Your task to perform on an android device: show emergency info Image 0: 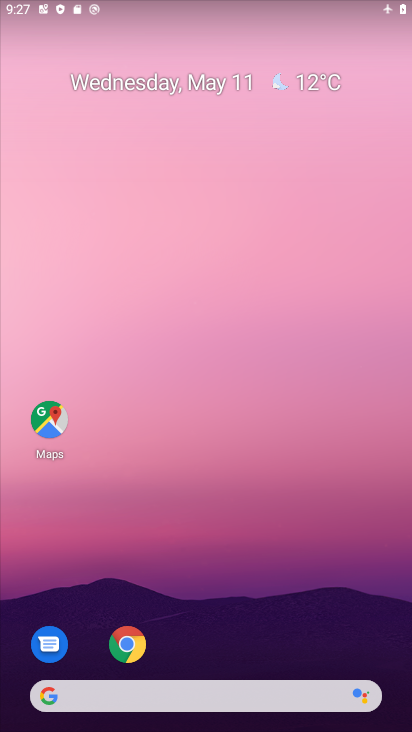
Step 0: drag from (182, 586) to (220, 122)
Your task to perform on an android device: show emergency info Image 1: 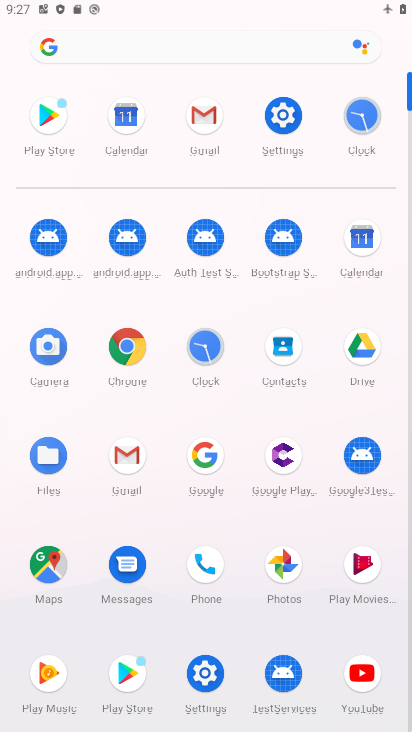
Step 1: click (291, 115)
Your task to perform on an android device: show emergency info Image 2: 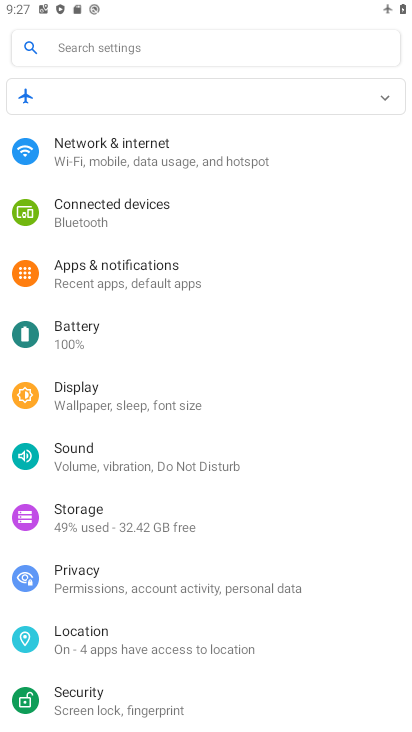
Step 2: drag from (313, 621) to (280, 113)
Your task to perform on an android device: show emergency info Image 3: 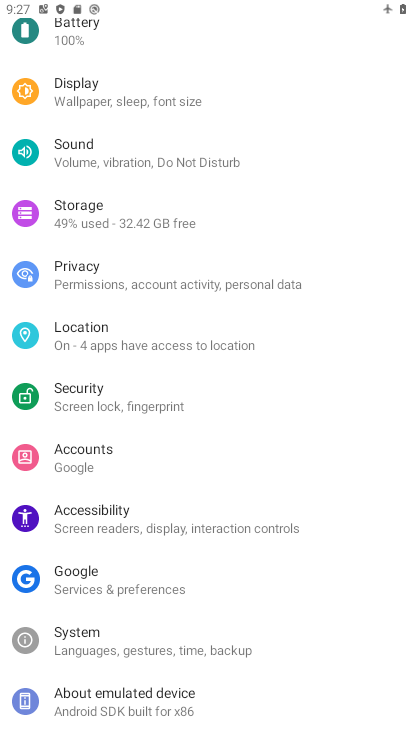
Step 3: click (131, 693)
Your task to perform on an android device: show emergency info Image 4: 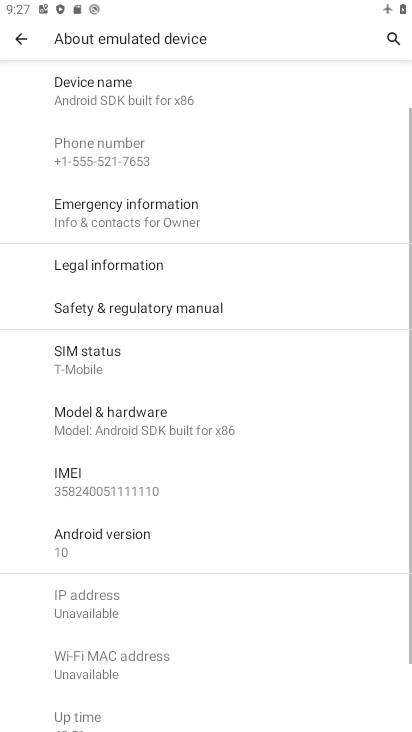
Step 4: click (197, 227)
Your task to perform on an android device: show emergency info Image 5: 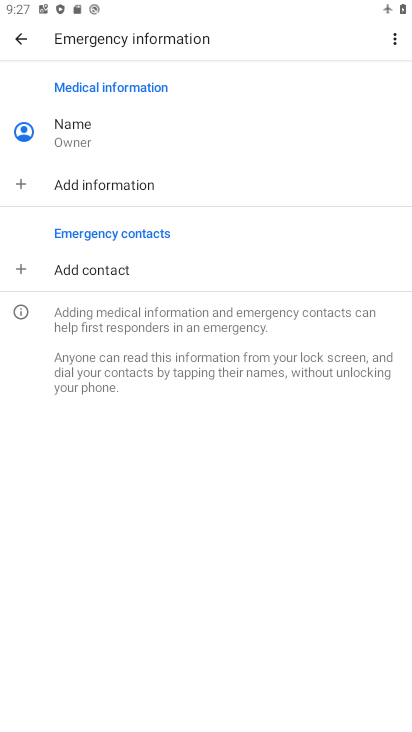
Step 5: task complete